Your task to perform on an android device: toggle translation in the chrome app Image 0: 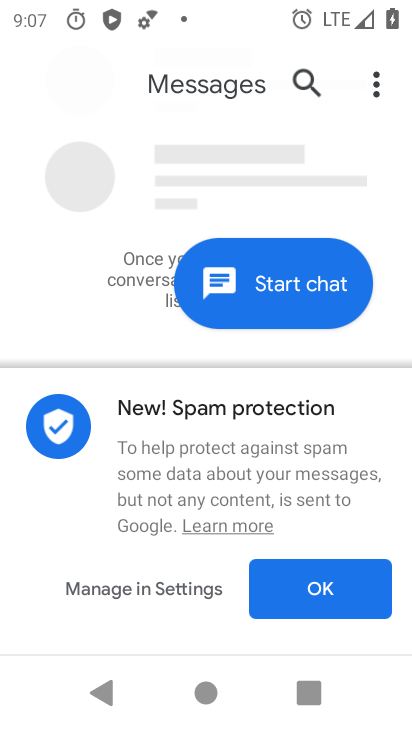
Step 0: press home button
Your task to perform on an android device: toggle translation in the chrome app Image 1: 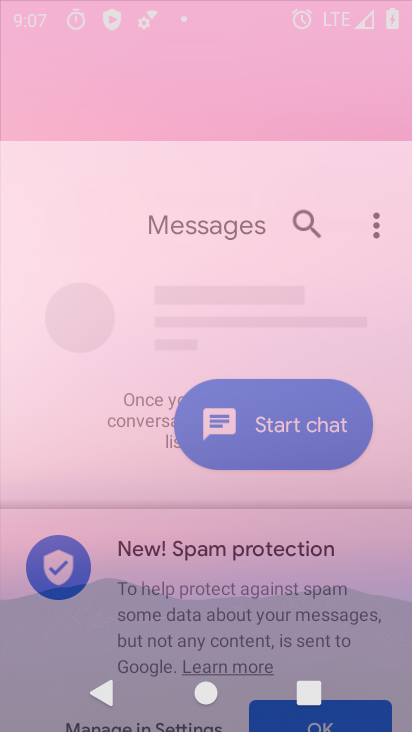
Step 1: drag from (331, 496) to (327, 130)
Your task to perform on an android device: toggle translation in the chrome app Image 2: 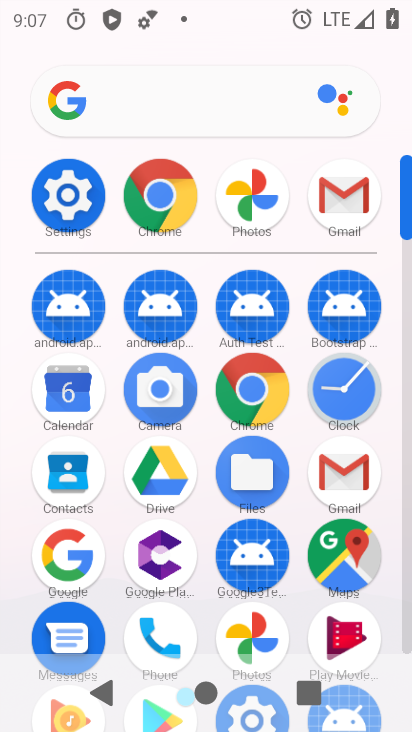
Step 2: click (253, 385)
Your task to perform on an android device: toggle translation in the chrome app Image 3: 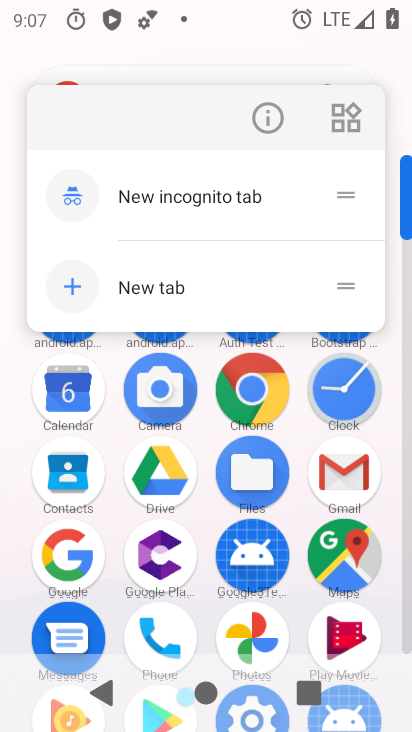
Step 3: click (272, 125)
Your task to perform on an android device: toggle translation in the chrome app Image 4: 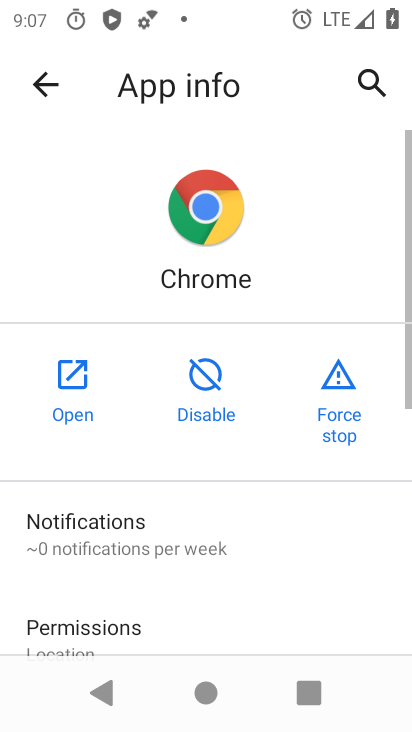
Step 4: click (67, 396)
Your task to perform on an android device: toggle translation in the chrome app Image 5: 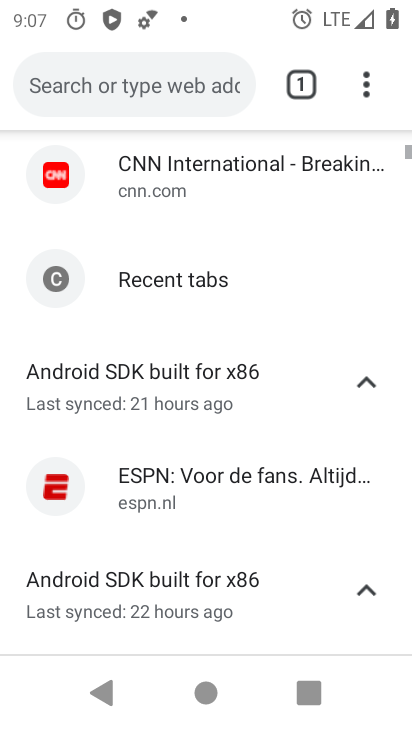
Step 5: click (374, 98)
Your task to perform on an android device: toggle translation in the chrome app Image 6: 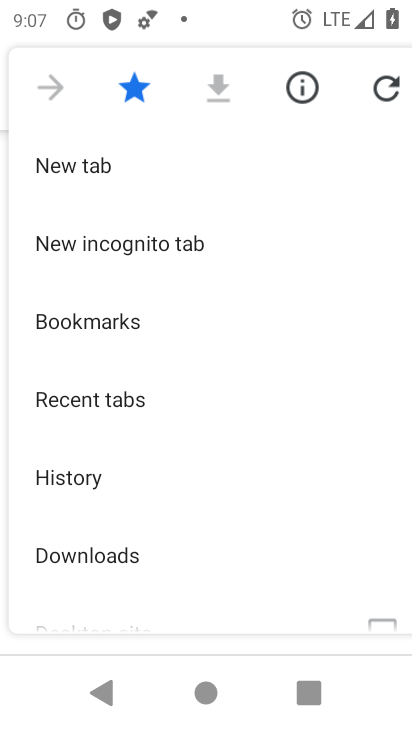
Step 6: drag from (126, 491) to (202, 236)
Your task to perform on an android device: toggle translation in the chrome app Image 7: 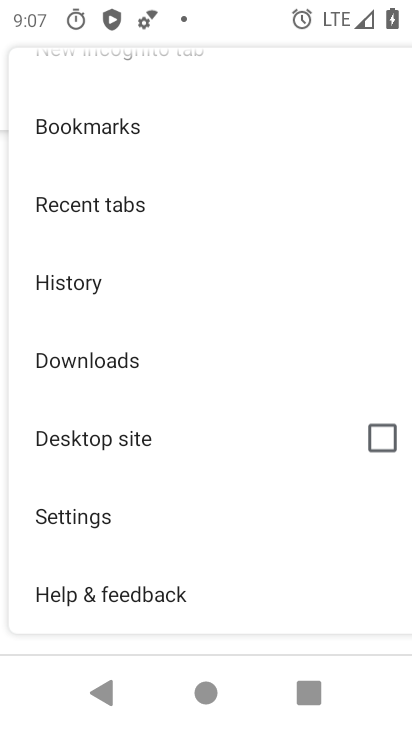
Step 7: click (129, 516)
Your task to perform on an android device: toggle translation in the chrome app Image 8: 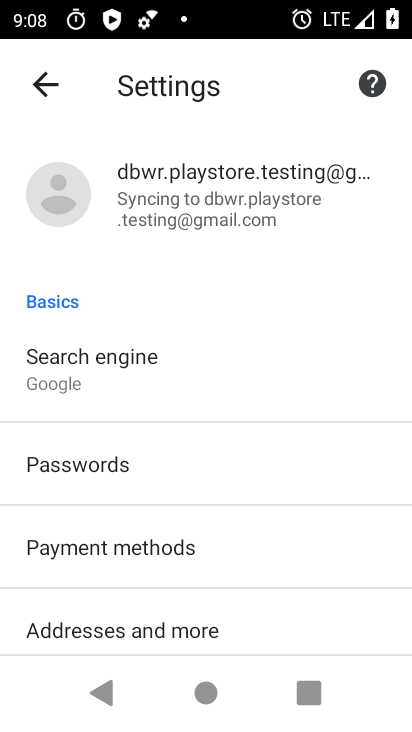
Step 8: drag from (178, 513) to (306, 143)
Your task to perform on an android device: toggle translation in the chrome app Image 9: 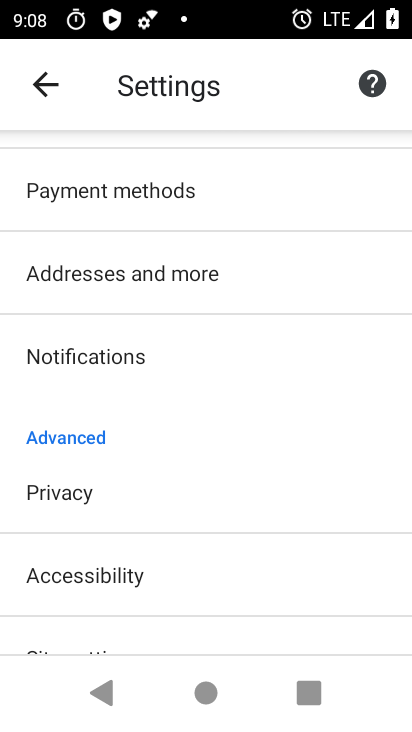
Step 9: drag from (232, 501) to (292, 172)
Your task to perform on an android device: toggle translation in the chrome app Image 10: 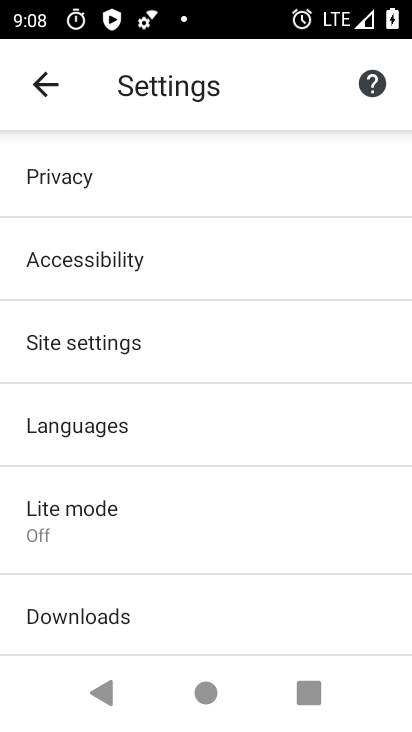
Step 10: click (106, 433)
Your task to perform on an android device: toggle translation in the chrome app Image 11: 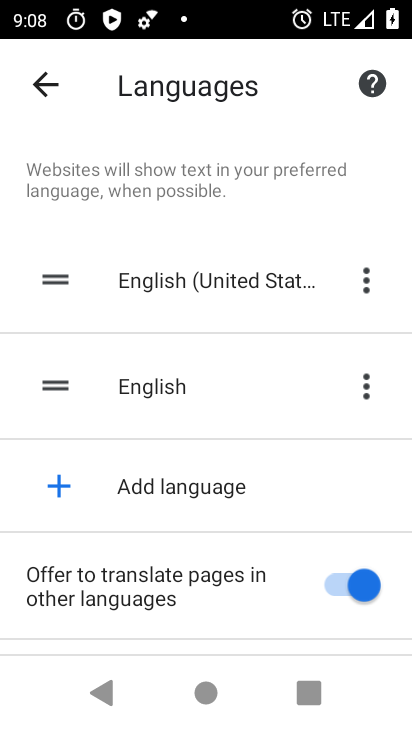
Step 11: click (345, 568)
Your task to perform on an android device: toggle translation in the chrome app Image 12: 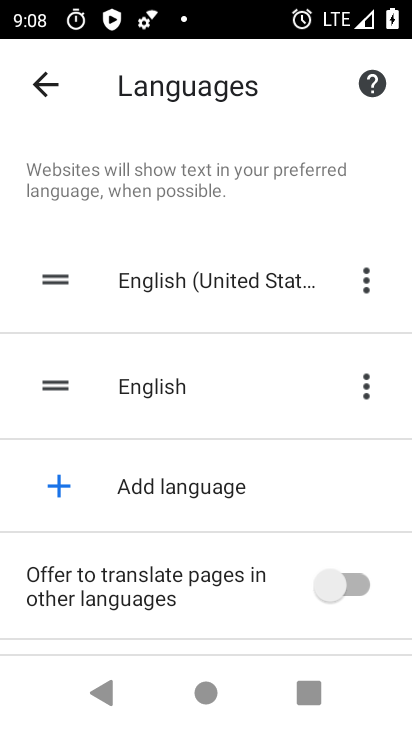
Step 12: task complete